Your task to perform on an android device: set an alarm Image 0: 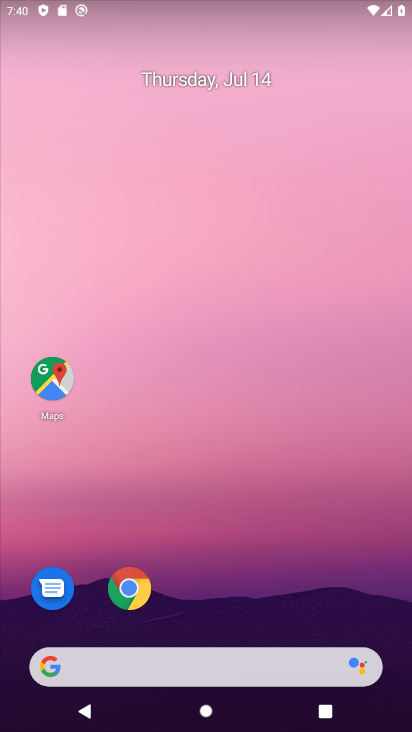
Step 0: click (316, 38)
Your task to perform on an android device: set an alarm Image 1: 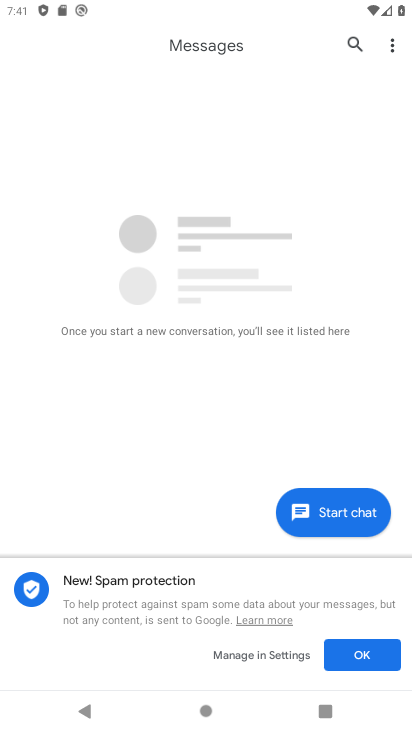
Step 1: press home button
Your task to perform on an android device: set an alarm Image 2: 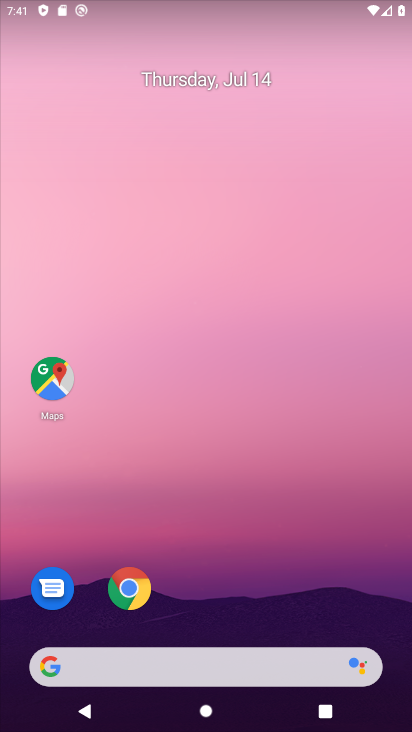
Step 2: drag from (39, 714) to (247, 27)
Your task to perform on an android device: set an alarm Image 3: 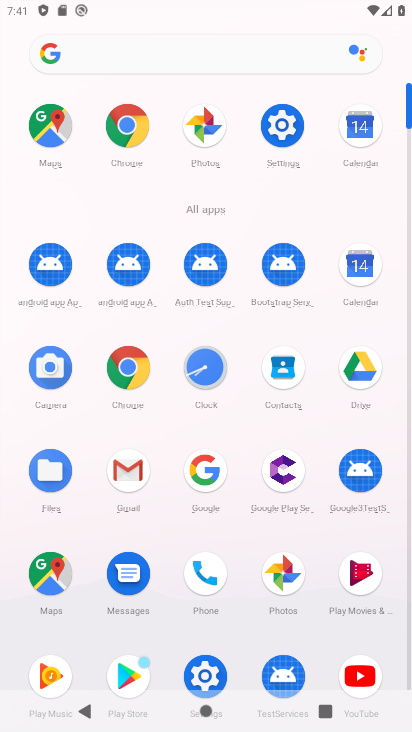
Step 3: click (196, 379)
Your task to perform on an android device: set an alarm Image 4: 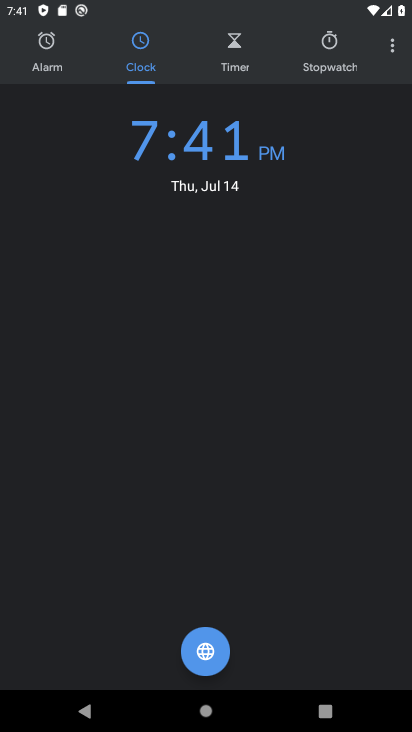
Step 4: click (56, 49)
Your task to perform on an android device: set an alarm Image 5: 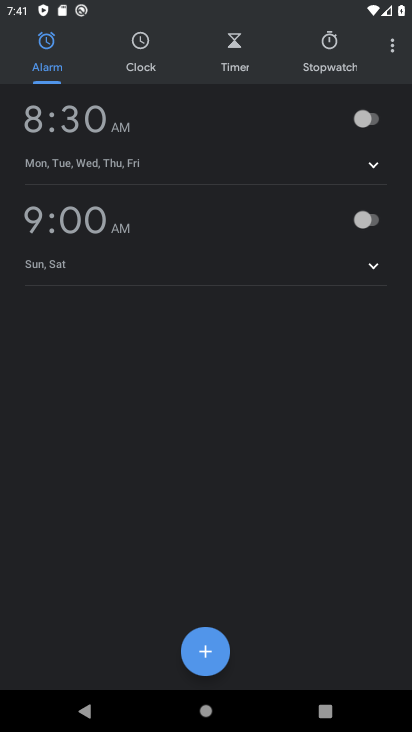
Step 5: click (362, 115)
Your task to perform on an android device: set an alarm Image 6: 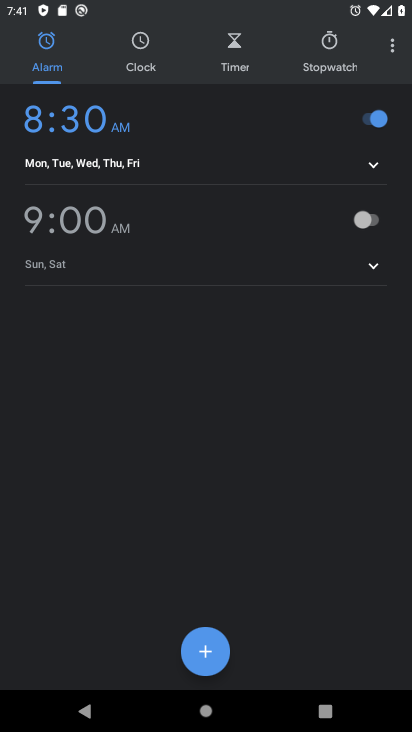
Step 6: task complete